Your task to perform on an android device: toggle location history Image 0: 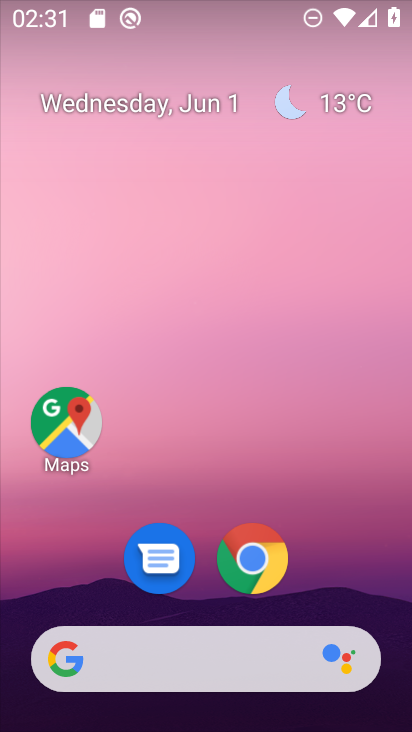
Step 0: drag from (386, 617) to (370, 183)
Your task to perform on an android device: toggle location history Image 1: 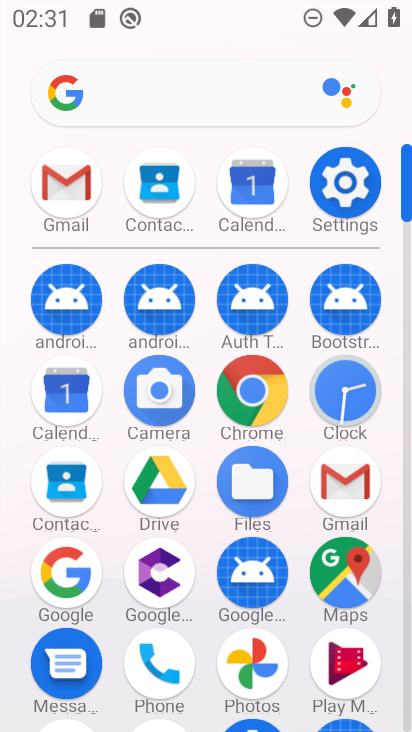
Step 1: click (332, 198)
Your task to perform on an android device: toggle location history Image 2: 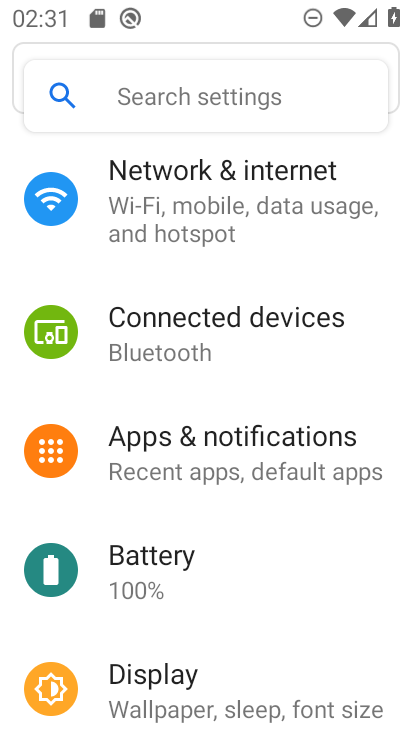
Step 2: drag from (286, 642) to (287, 221)
Your task to perform on an android device: toggle location history Image 3: 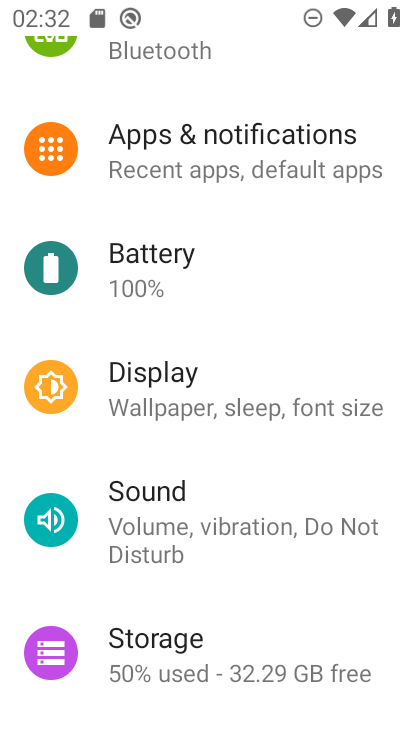
Step 3: drag from (278, 619) to (290, 261)
Your task to perform on an android device: toggle location history Image 4: 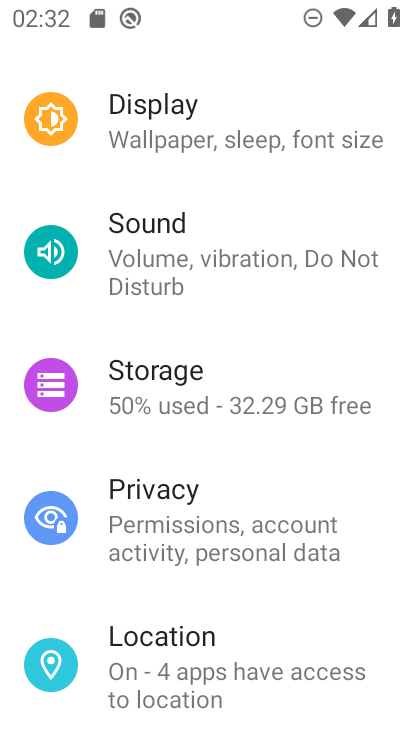
Step 4: click (187, 648)
Your task to perform on an android device: toggle location history Image 5: 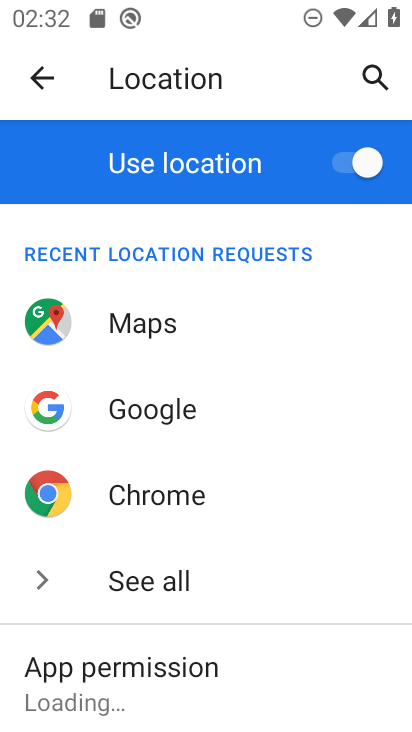
Step 5: drag from (284, 574) to (282, 275)
Your task to perform on an android device: toggle location history Image 6: 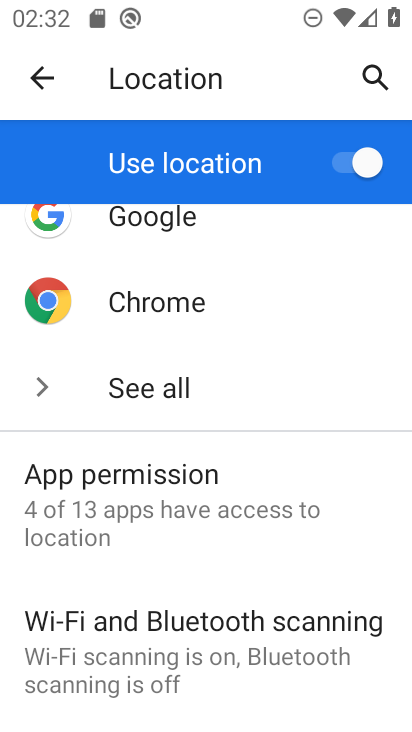
Step 6: drag from (324, 672) to (275, 209)
Your task to perform on an android device: toggle location history Image 7: 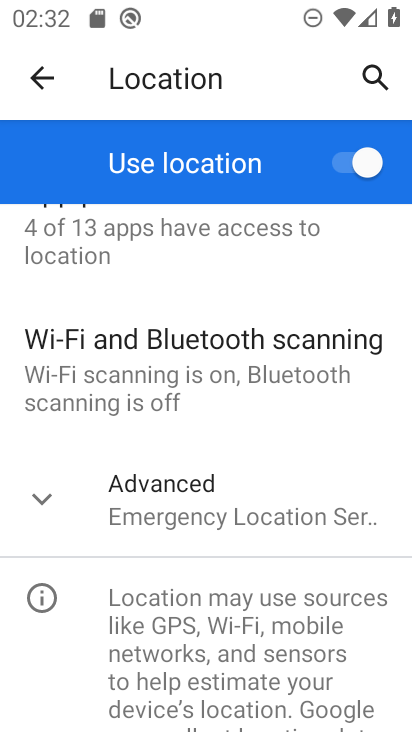
Step 7: click (34, 493)
Your task to perform on an android device: toggle location history Image 8: 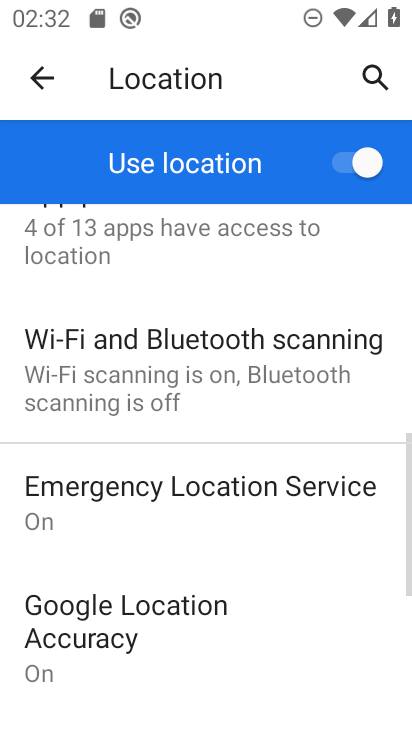
Step 8: drag from (280, 629) to (263, 183)
Your task to perform on an android device: toggle location history Image 9: 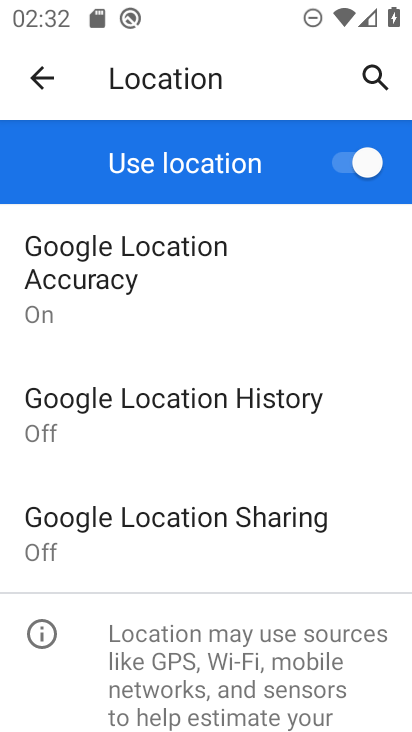
Step 9: click (133, 405)
Your task to perform on an android device: toggle location history Image 10: 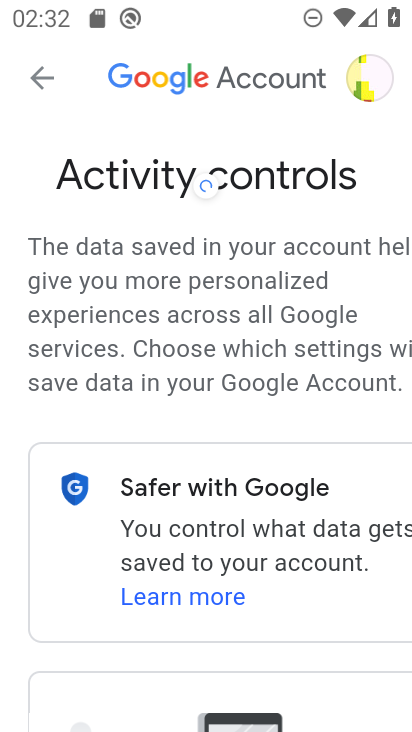
Step 10: drag from (90, 644) to (142, 203)
Your task to perform on an android device: toggle location history Image 11: 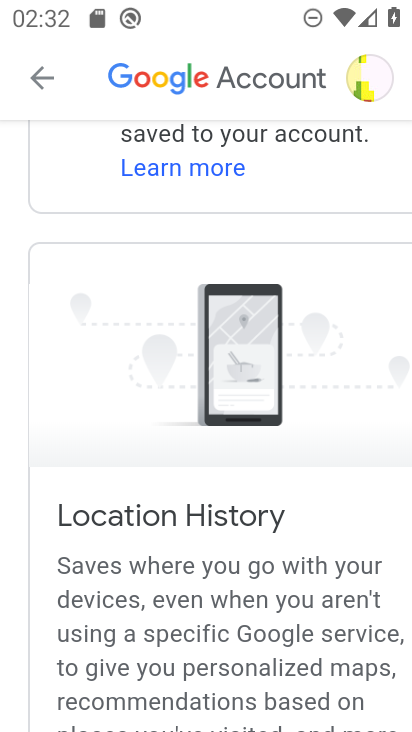
Step 11: drag from (102, 467) to (129, 132)
Your task to perform on an android device: toggle location history Image 12: 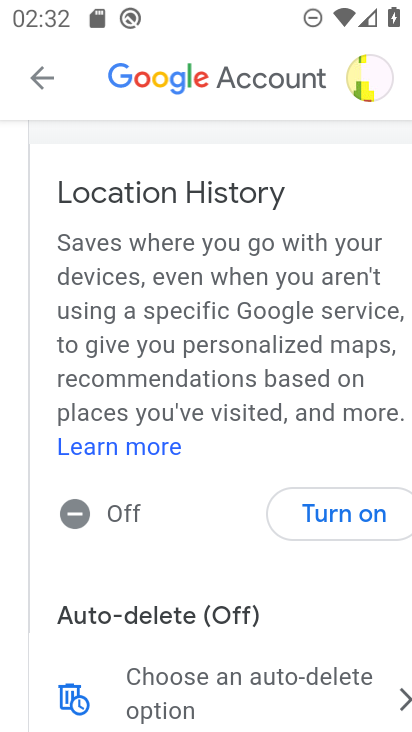
Step 12: click (311, 497)
Your task to perform on an android device: toggle location history Image 13: 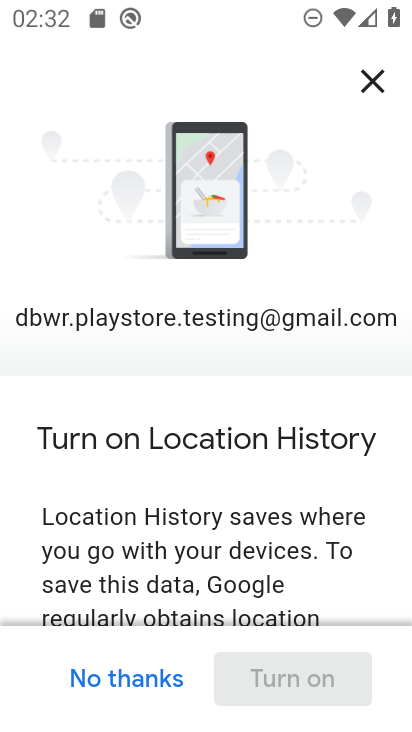
Step 13: drag from (281, 594) to (233, 133)
Your task to perform on an android device: toggle location history Image 14: 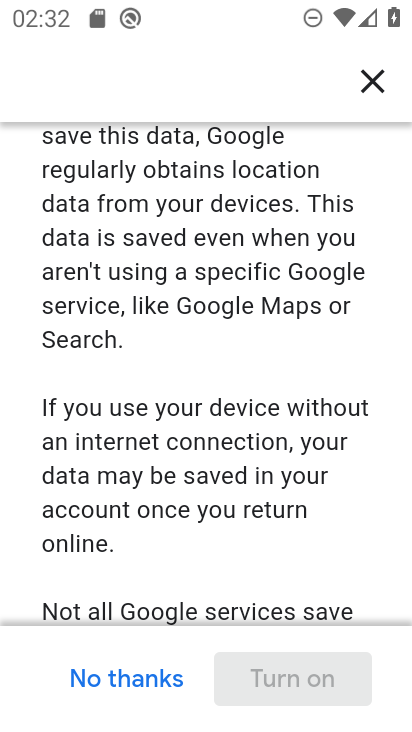
Step 14: drag from (225, 504) to (236, 169)
Your task to perform on an android device: toggle location history Image 15: 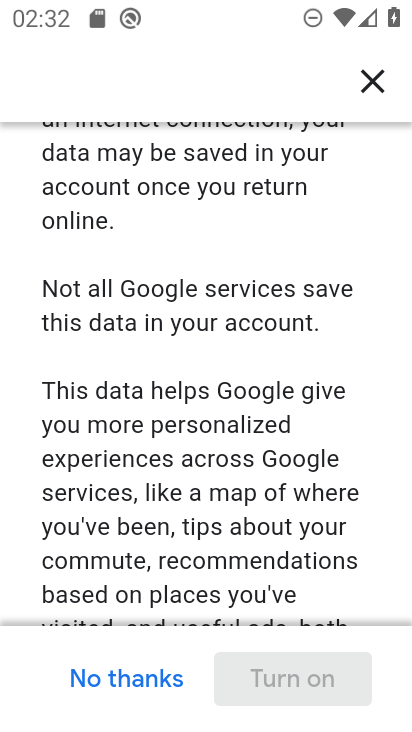
Step 15: drag from (256, 575) to (231, 124)
Your task to perform on an android device: toggle location history Image 16: 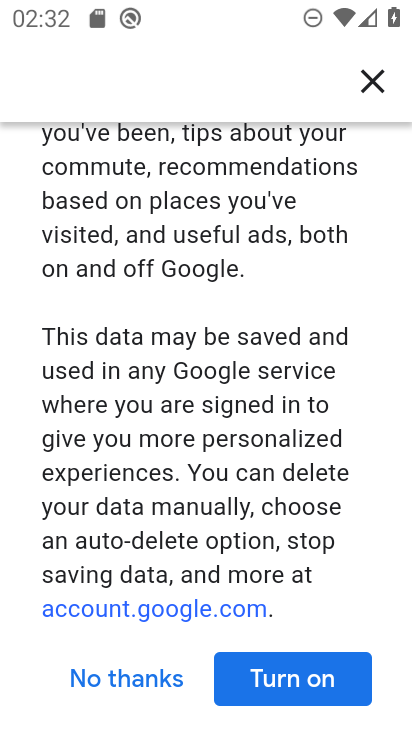
Step 16: click (279, 670)
Your task to perform on an android device: toggle location history Image 17: 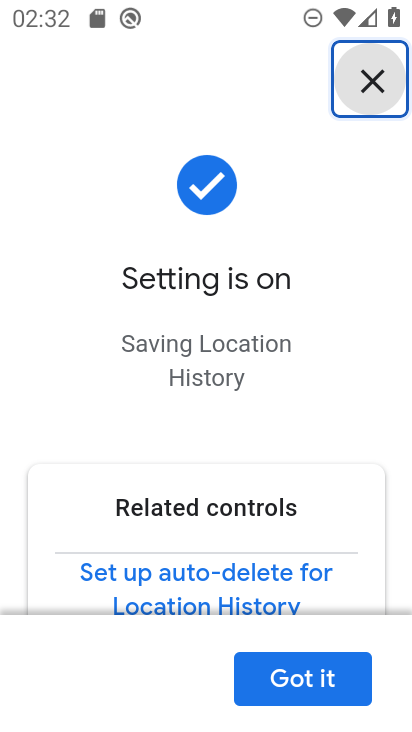
Step 17: click (327, 684)
Your task to perform on an android device: toggle location history Image 18: 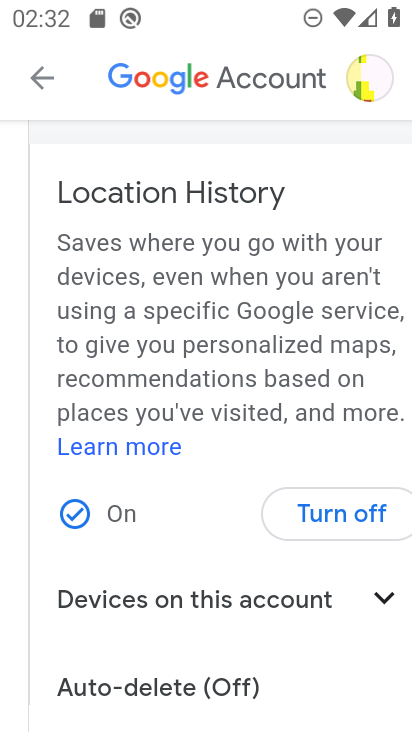
Step 18: task complete